Your task to perform on an android device: Open the calendar and show me this week's events Image 0: 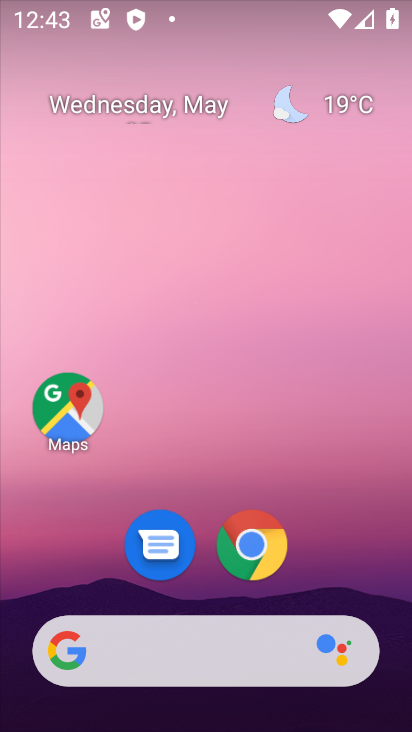
Step 0: click (140, 122)
Your task to perform on an android device: Open the calendar and show me this week's events Image 1: 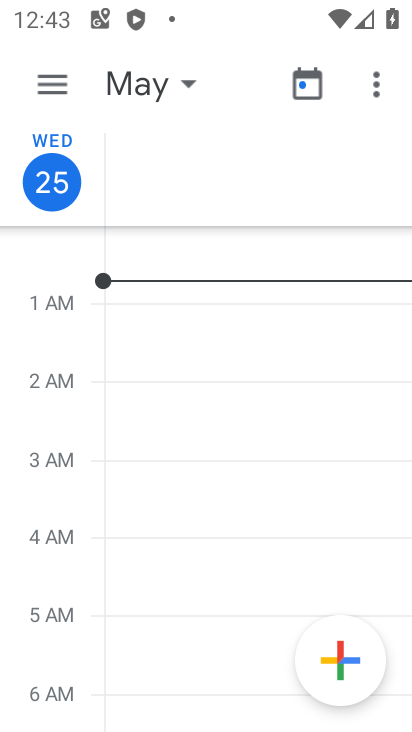
Step 1: click (152, 96)
Your task to perform on an android device: Open the calendar and show me this week's events Image 2: 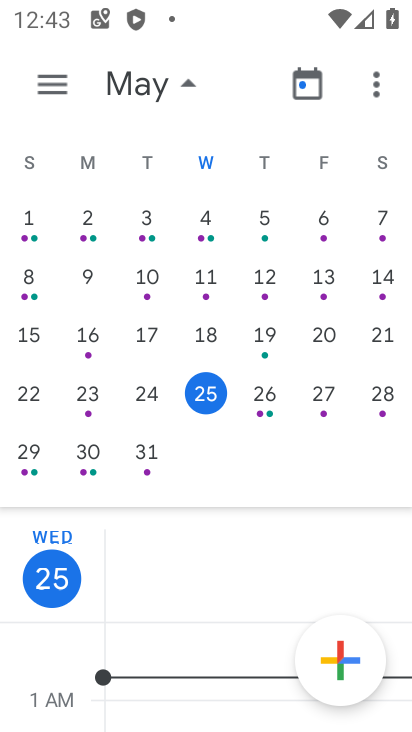
Step 2: click (147, 454)
Your task to perform on an android device: Open the calendar and show me this week's events Image 3: 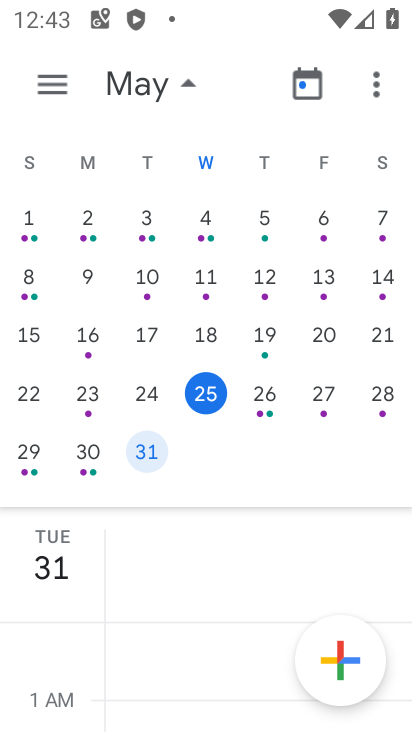
Step 3: task complete